Your task to perform on an android device: Open location settings Image 0: 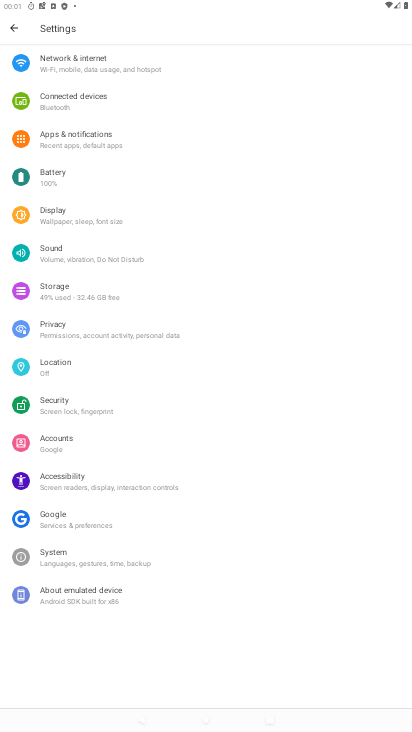
Step 0: press home button
Your task to perform on an android device: Open location settings Image 1: 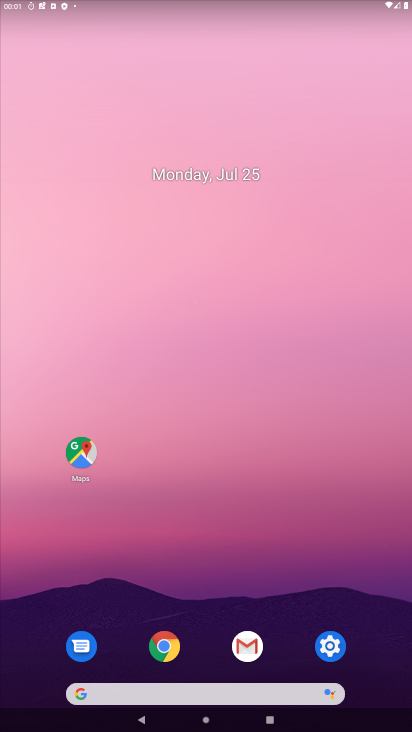
Step 1: click (319, 649)
Your task to perform on an android device: Open location settings Image 2: 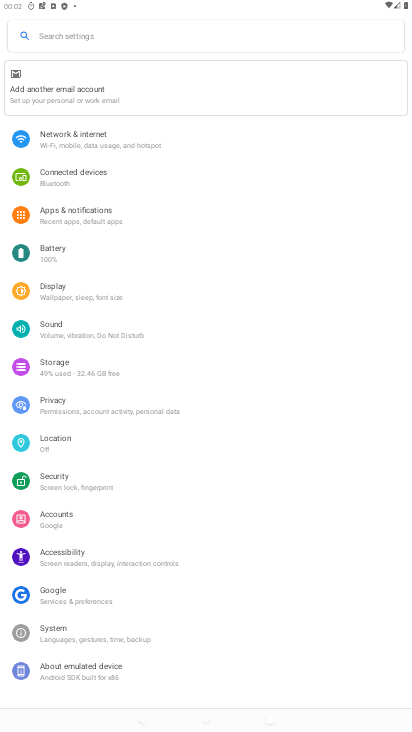
Step 2: click (70, 446)
Your task to perform on an android device: Open location settings Image 3: 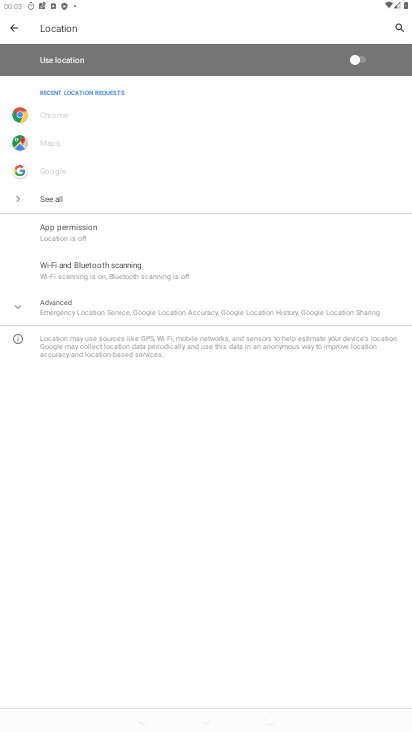
Step 3: task complete